Your task to perform on an android device: Open Reddit.com Image 0: 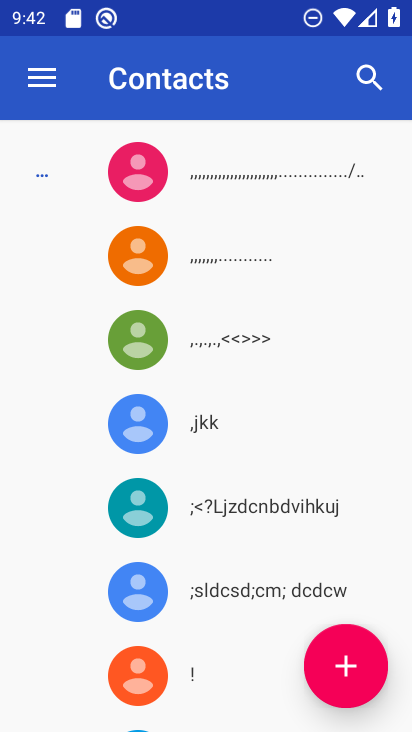
Step 0: press home button
Your task to perform on an android device: Open Reddit.com Image 1: 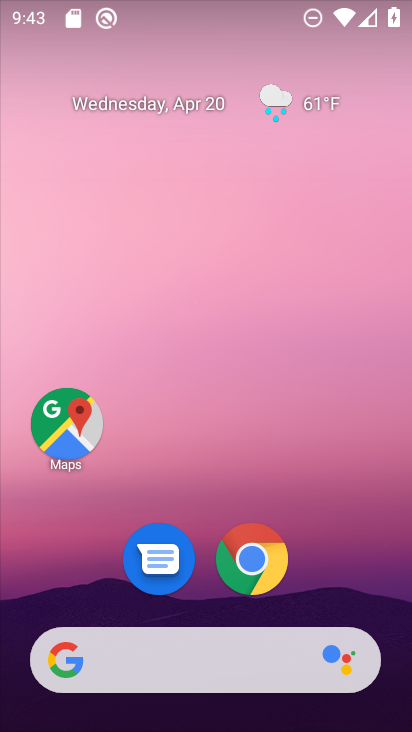
Step 1: click (250, 559)
Your task to perform on an android device: Open Reddit.com Image 2: 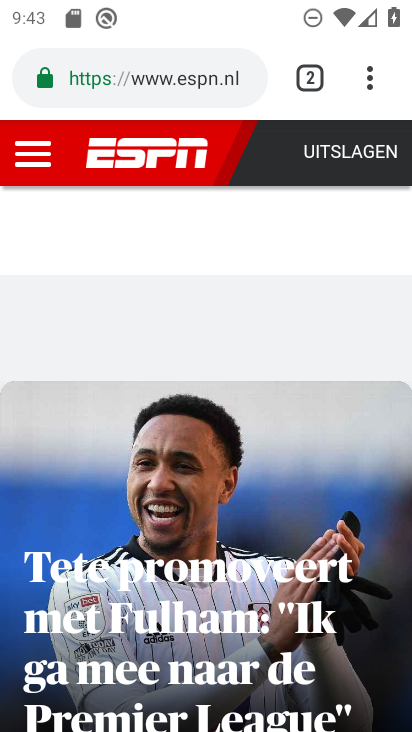
Step 2: click (120, 62)
Your task to perform on an android device: Open Reddit.com Image 3: 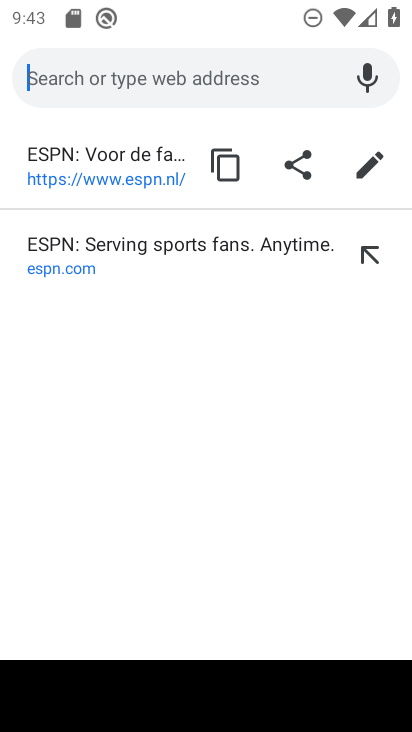
Step 3: type "reddit.com"
Your task to perform on an android device: Open Reddit.com Image 4: 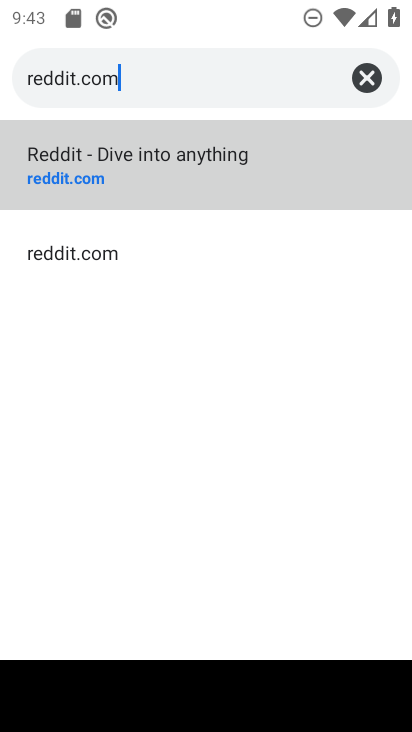
Step 4: click (55, 150)
Your task to perform on an android device: Open Reddit.com Image 5: 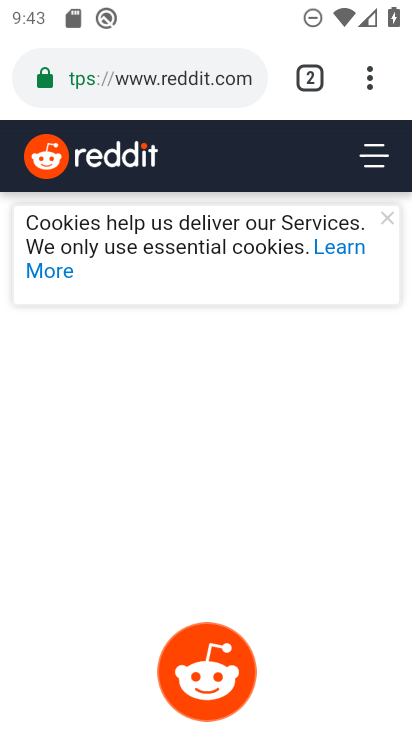
Step 5: task complete